Your task to perform on an android device: change the clock style Image 0: 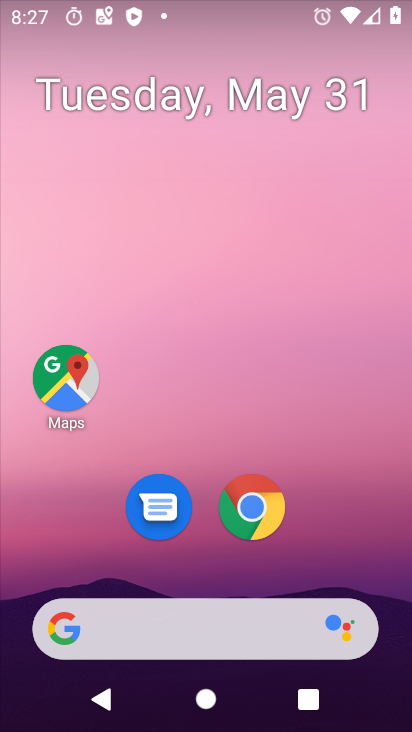
Step 0: drag from (333, 573) to (326, 7)
Your task to perform on an android device: change the clock style Image 1: 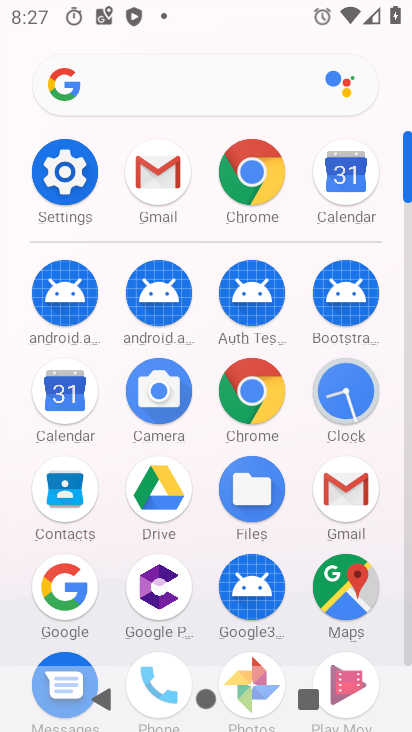
Step 1: click (337, 394)
Your task to perform on an android device: change the clock style Image 2: 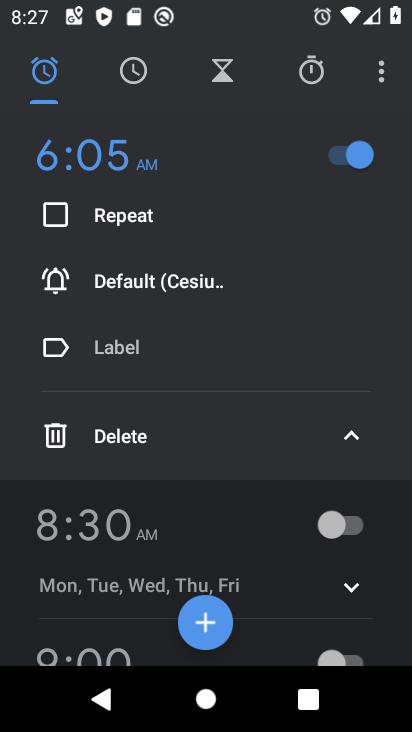
Step 2: click (382, 72)
Your task to perform on an android device: change the clock style Image 3: 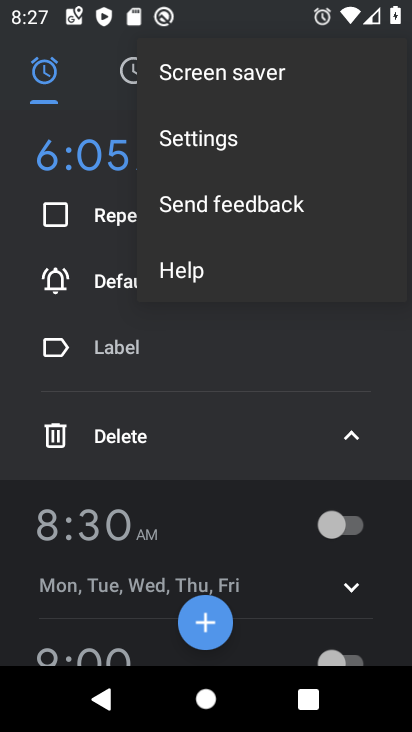
Step 3: click (222, 143)
Your task to perform on an android device: change the clock style Image 4: 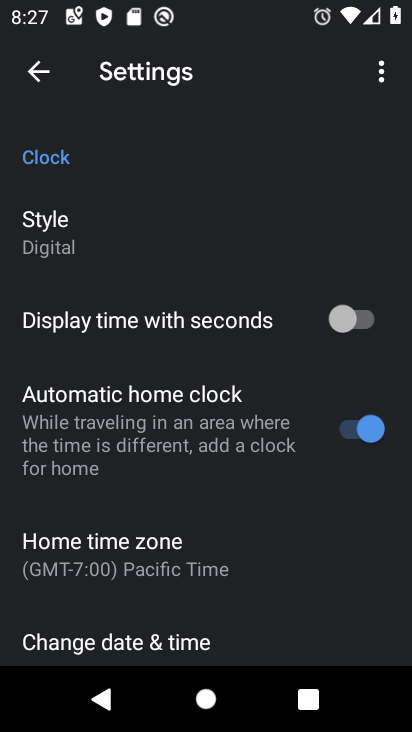
Step 4: click (36, 245)
Your task to perform on an android device: change the clock style Image 5: 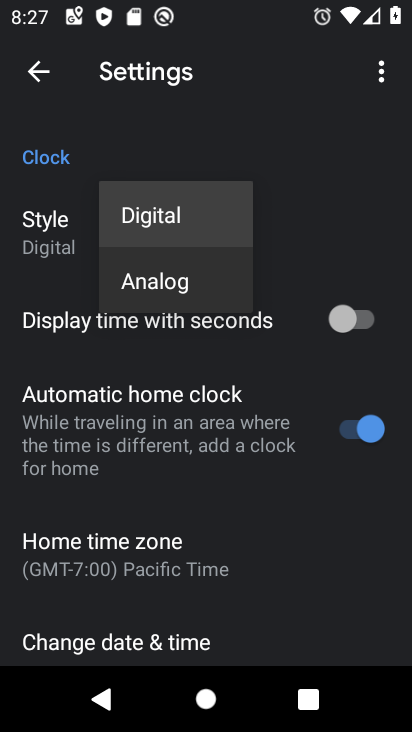
Step 5: click (142, 285)
Your task to perform on an android device: change the clock style Image 6: 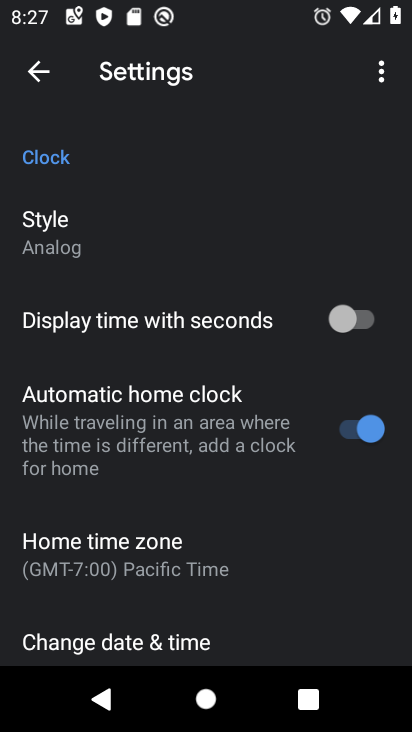
Step 6: task complete